Your task to perform on an android device: manage bookmarks in the chrome app Image 0: 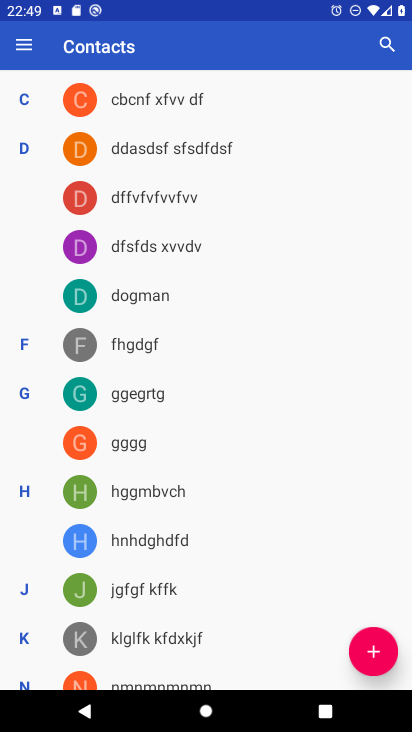
Step 0: press home button
Your task to perform on an android device: manage bookmarks in the chrome app Image 1: 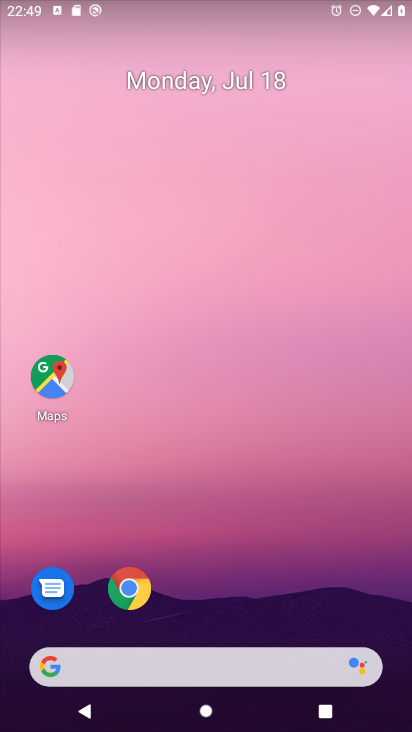
Step 1: click (127, 590)
Your task to perform on an android device: manage bookmarks in the chrome app Image 2: 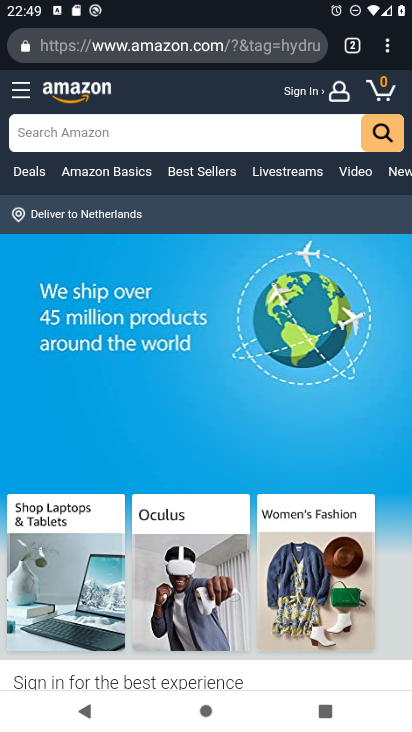
Step 2: click (387, 52)
Your task to perform on an android device: manage bookmarks in the chrome app Image 3: 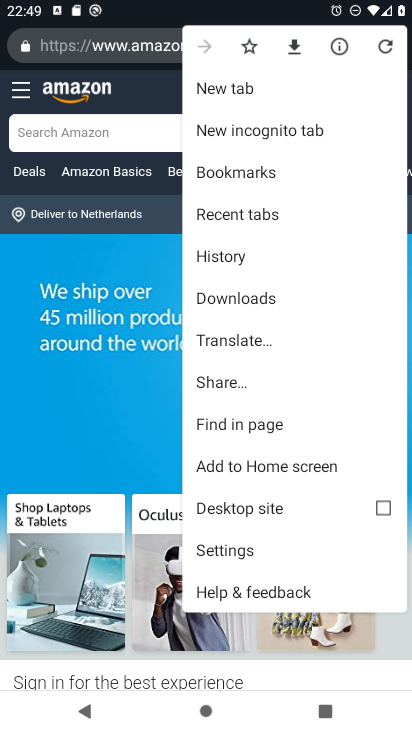
Step 3: click (243, 170)
Your task to perform on an android device: manage bookmarks in the chrome app Image 4: 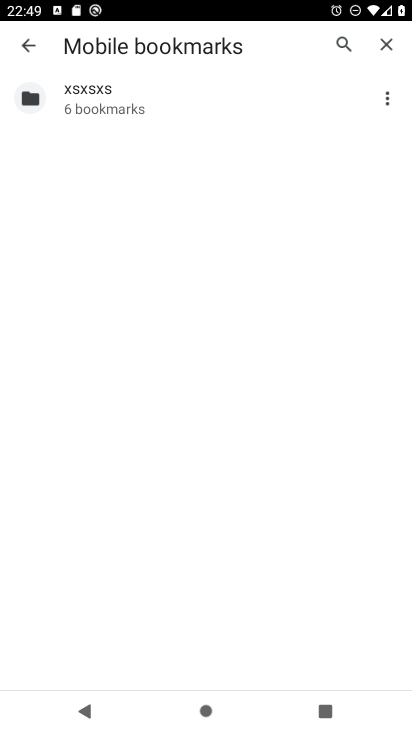
Step 4: click (83, 96)
Your task to perform on an android device: manage bookmarks in the chrome app Image 5: 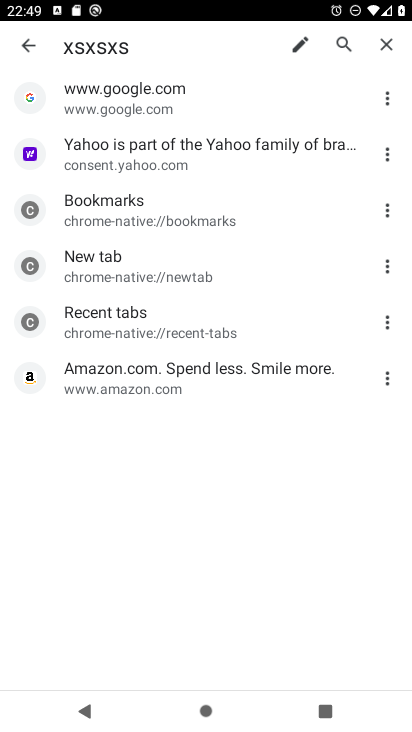
Step 5: click (107, 153)
Your task to perform on an android device: manage bookmarks in the chrome app Image 6: 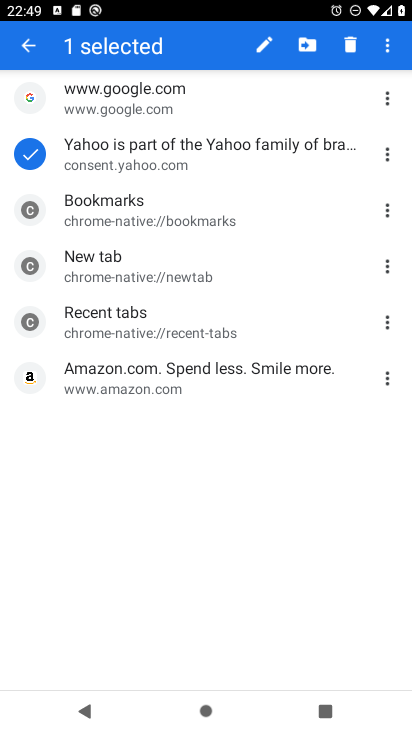
Step 6: click (304, 47)
Your task to perform on an android device: manage bookmarks in the chrome app Image 7: 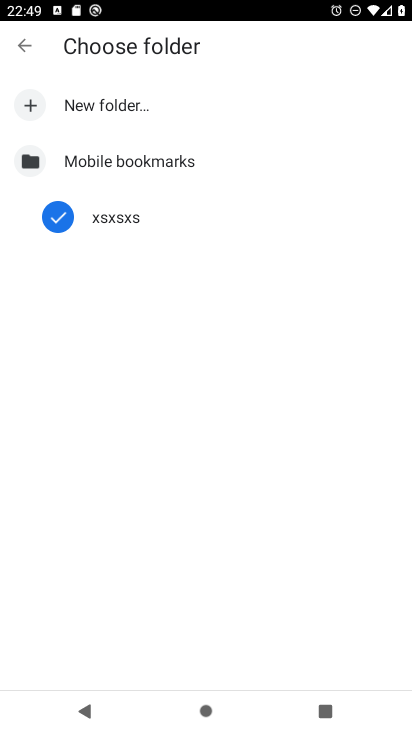
Step 7: click (117, 215)
Your task to perform on an android device: manage bookmarks in the chrome app Image 8: 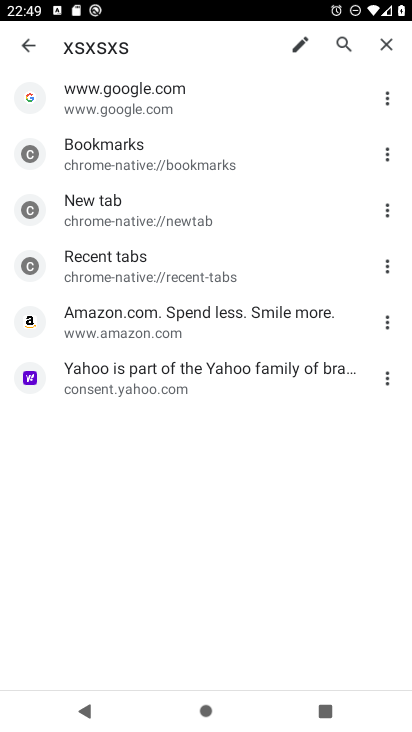
Step 8: task complete